Your task to perform on an android device: Go to Wikipedia Image 0: 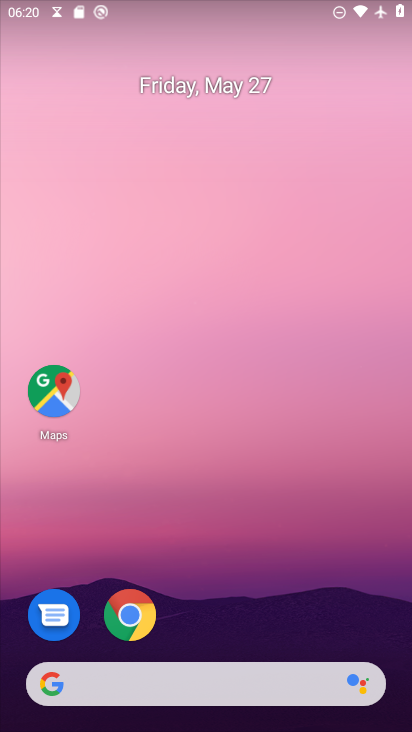
Step 0: click (123, 621)
Your task to perform on an android device: Go to Wikipedia Image 1: 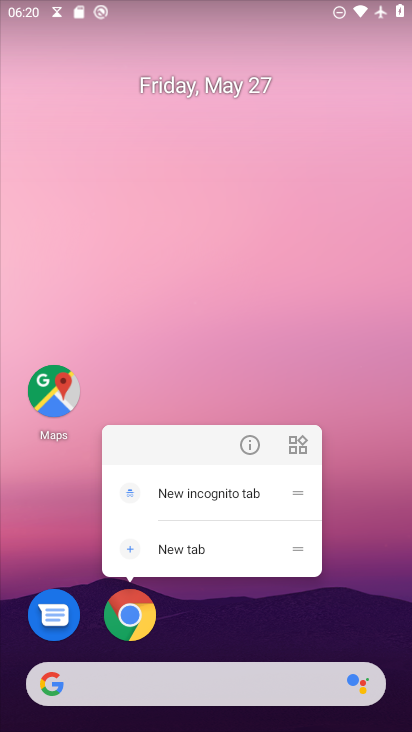
Step 1: click (139, 619)
Your task to perform on an android device: Go to Wikipedia Image 2: 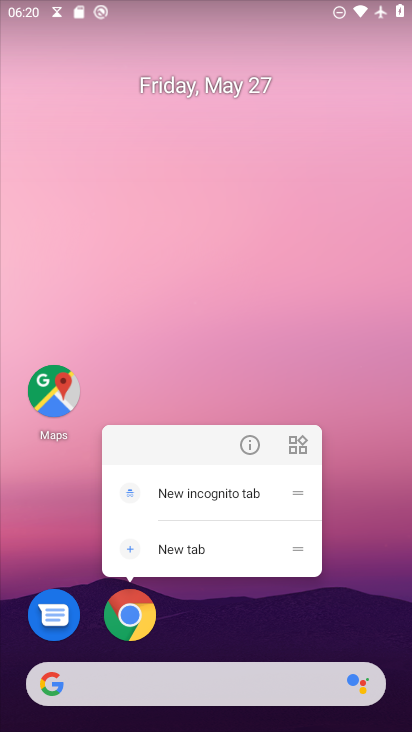
Step 2: click (141, 624)
Your task to perform on an android device: Go to Wikipedia Image 3: 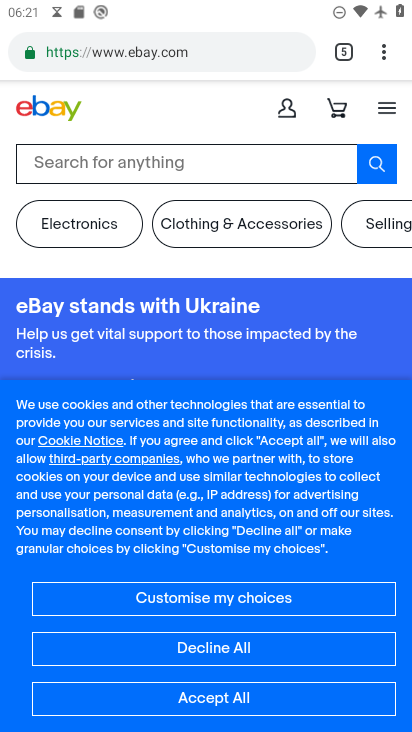
Step 3: click (345, 50)
Your task to perform on an android device: Go to Wikipedia Image 4: 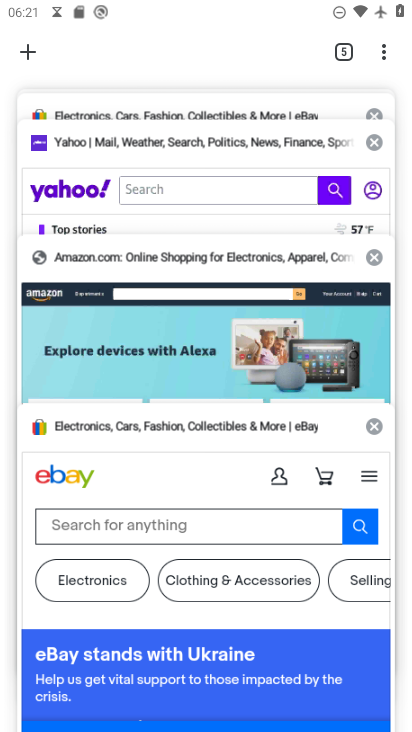
Step 4: click (23, 42)
Your task to perform on an android device: Go to Wikipedia Image 5: 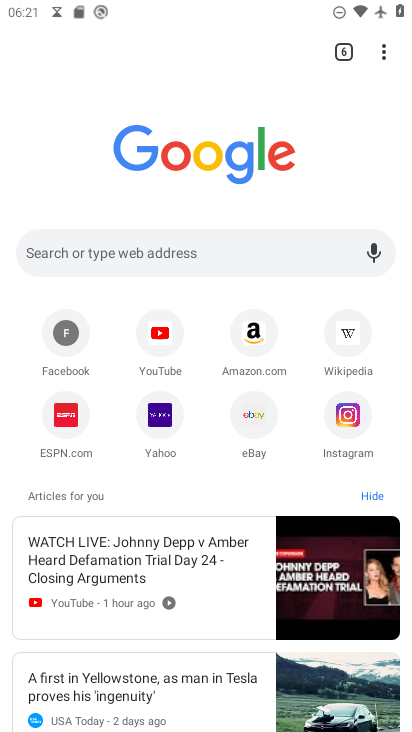
Step 5: click (348, 336)
Your task to perform on an android device: Go to Wikipedia Image 6: 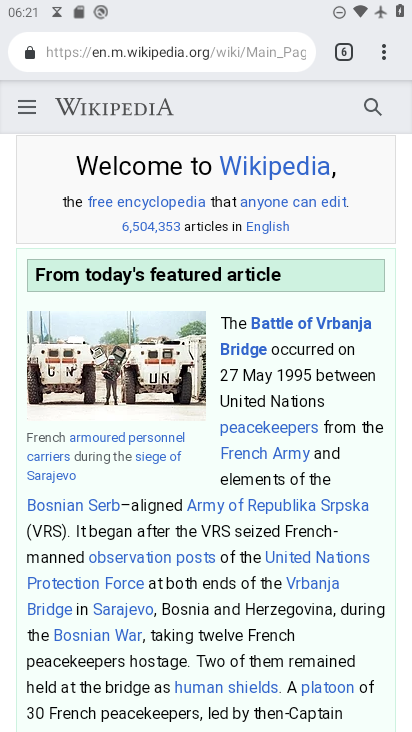
Step 6: task complete